Your task to perform on an android device: See recent photos Image 0: 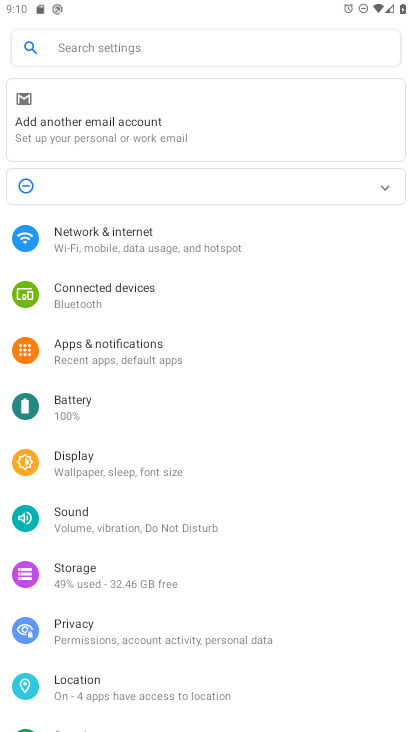
Step 0: press home button
Your task to perform on an android device: See recent photos Image 1: 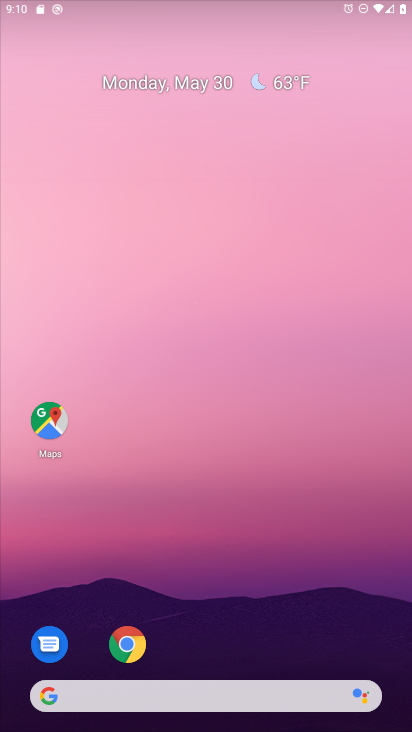
Step 1: drag from (182, 634) to (152, 94)
Your task to perform on an android device: See recent photos Image 2: 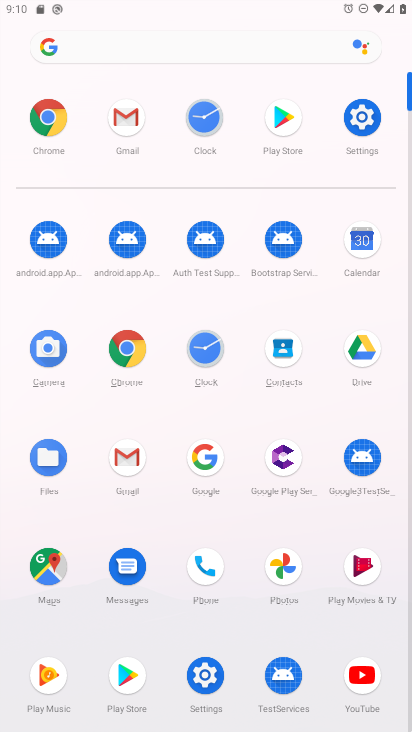
Step 2: click (284, 567)
Your task to perform on an android device: See recent photos Image 3: 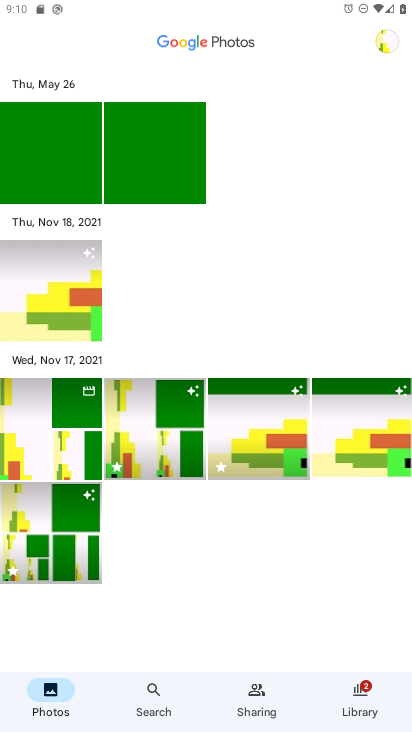
Step 3: task complete